Your task to perform on an android device: Clear all items from cart on target.com. Search for "logitech g pro" on target.com, select the first entry, add it to the cart, then select checkout. Image 0: 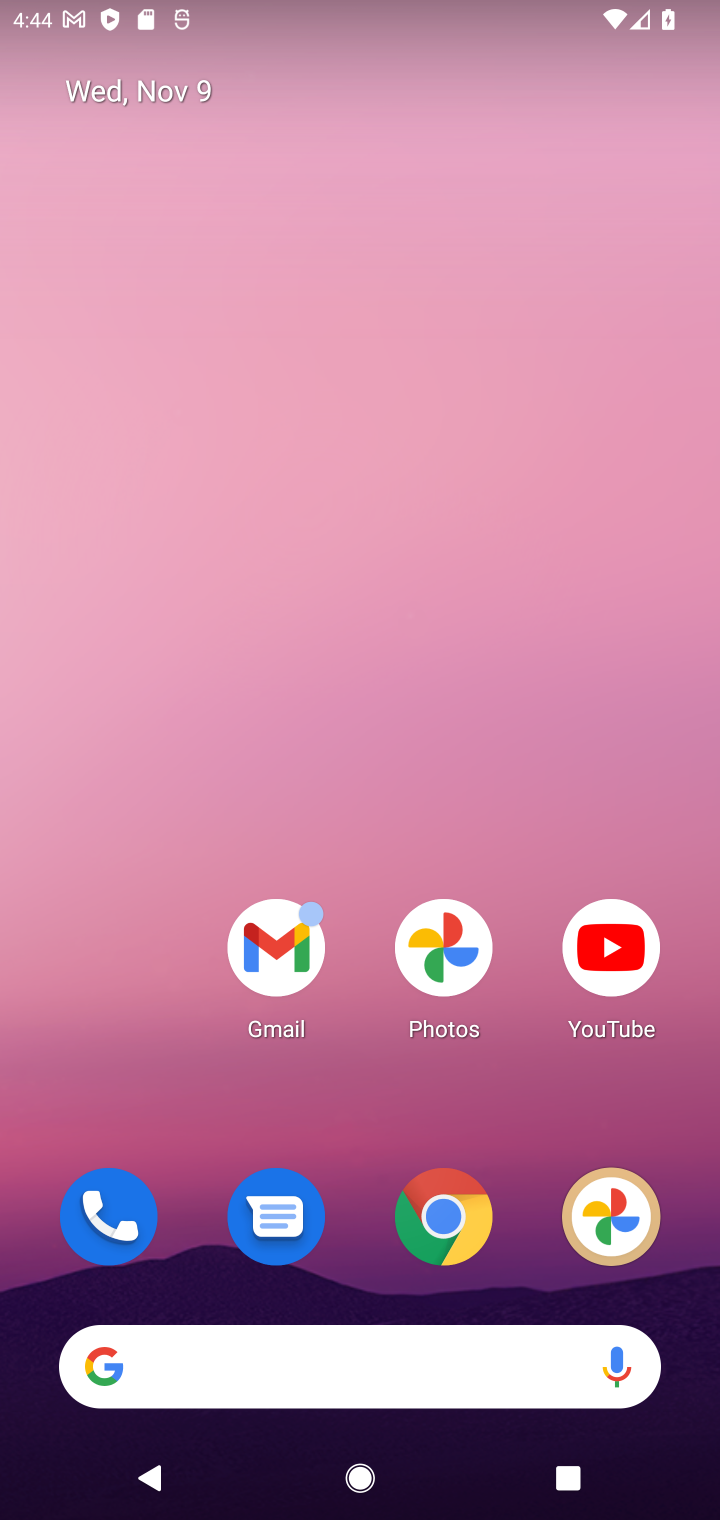
Step 0: drag from (351, 1273) to (426, 294)
Your task to perform on an android device: Clear all items from cart on target.com. Search for "logitech g pro" on target.com, select the first entry, add it to the cart, then select checkout. Image 1: 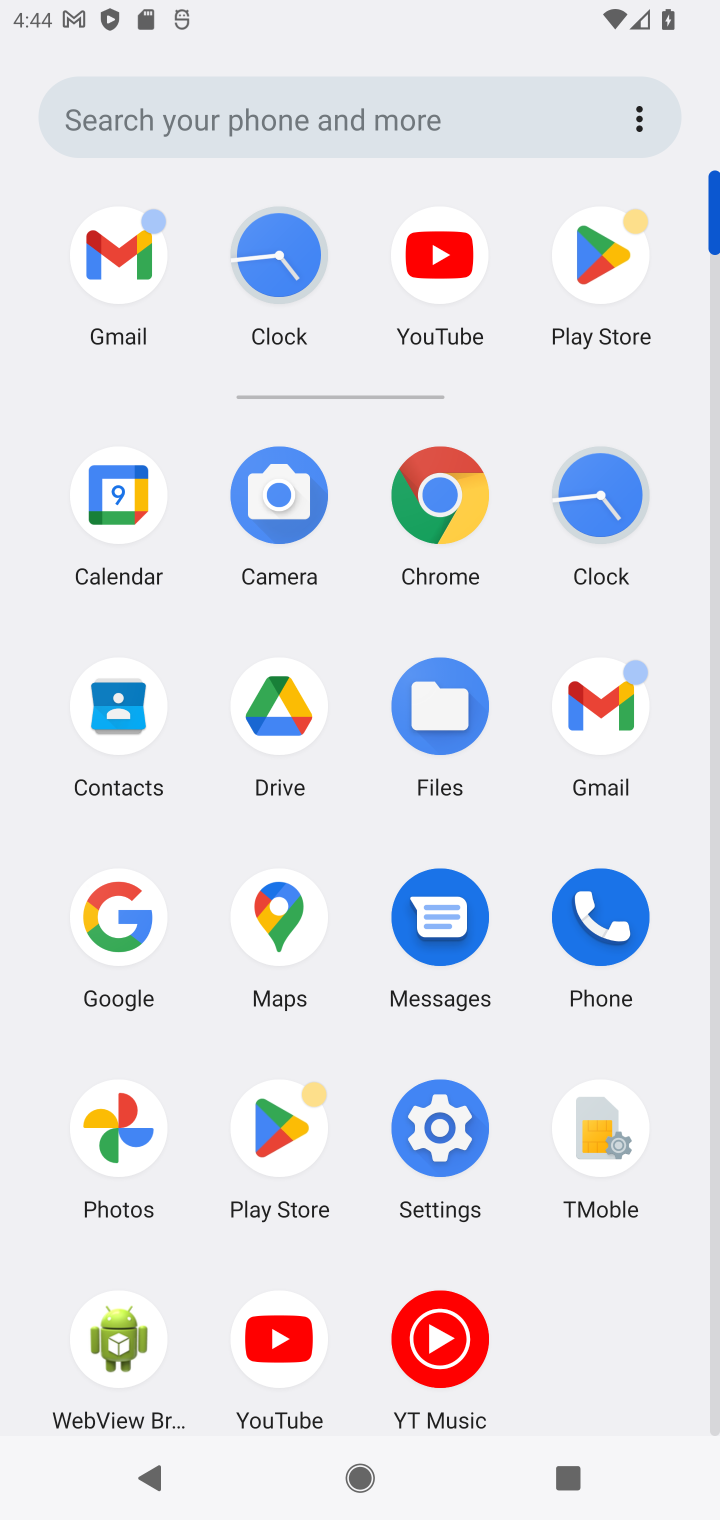
Step 1: click (450, 492)
Your task to perform on an android device: Clear all items from cart on target.com. Search for "logitech g pro" on target.com, select the first entry, add it to the cart, then select checkout. Image 2: 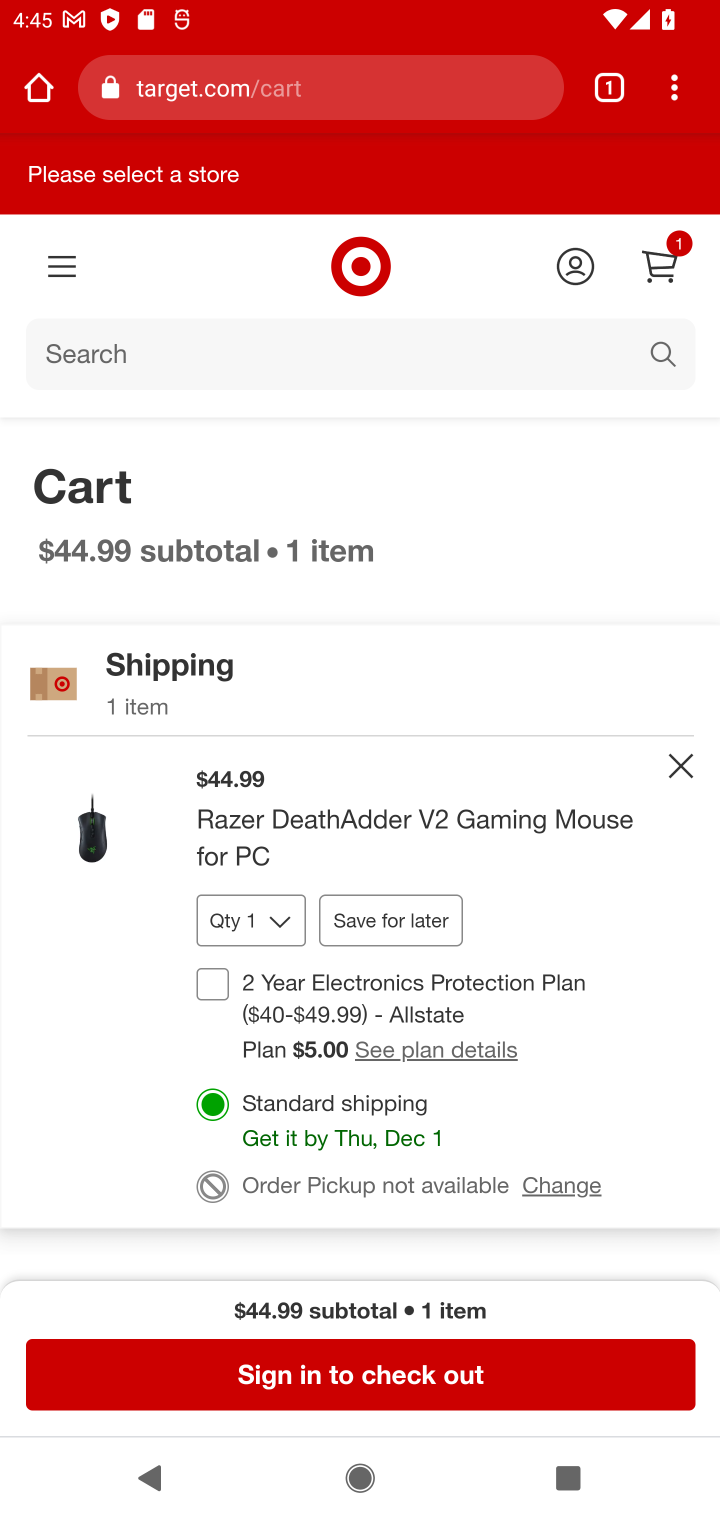
Step 2: click (668, 267)
Your task to perform on an android device: Clear all items from cart on target.com. Search for "logitech g pro" on target.com, select the first entry, add it to the cart, then select checkout. Image 3: 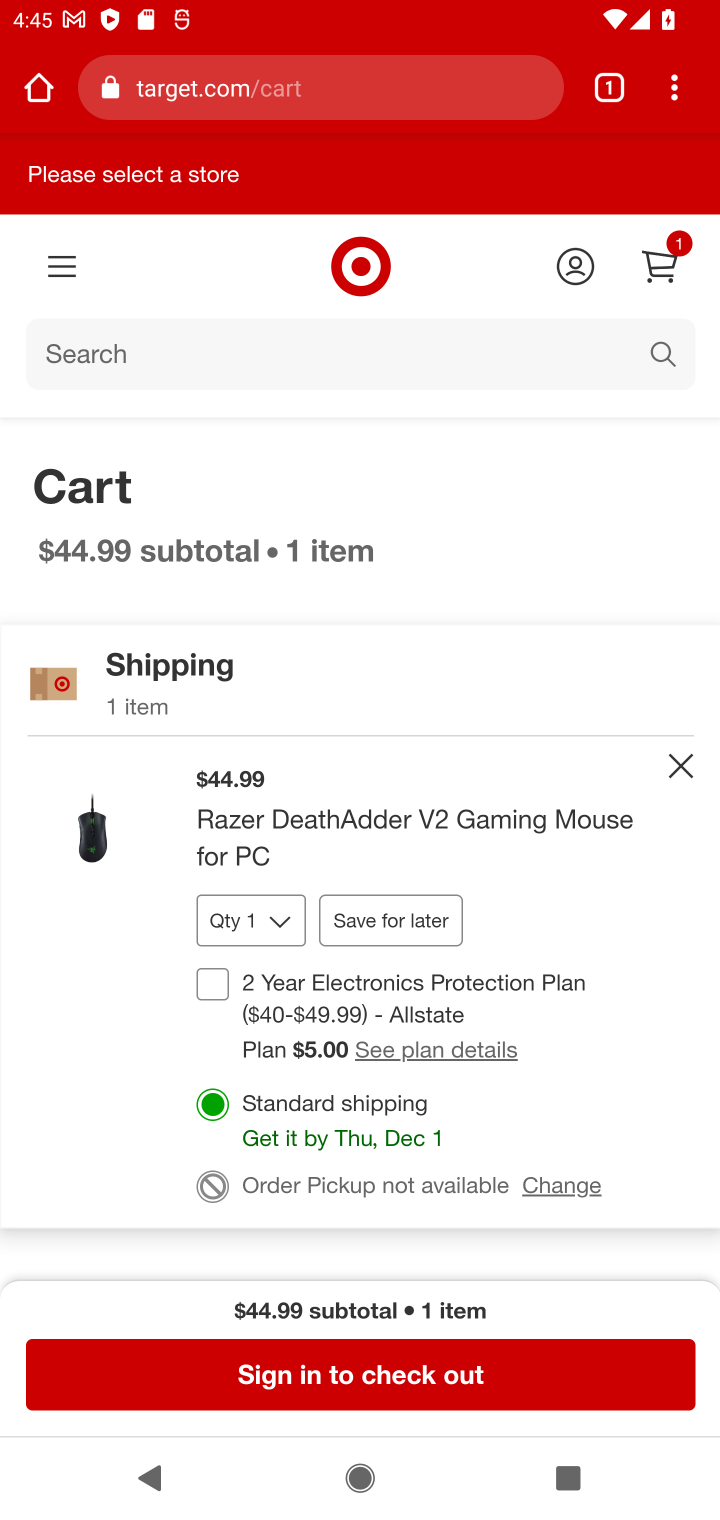
Step 3: click (685, 764)
Your task to perform on an android device: Clear all items from cart on target.com. Search for "logitech g pro" on target.com, select the first entry, add it to the cart, then select checkout. Image 4: 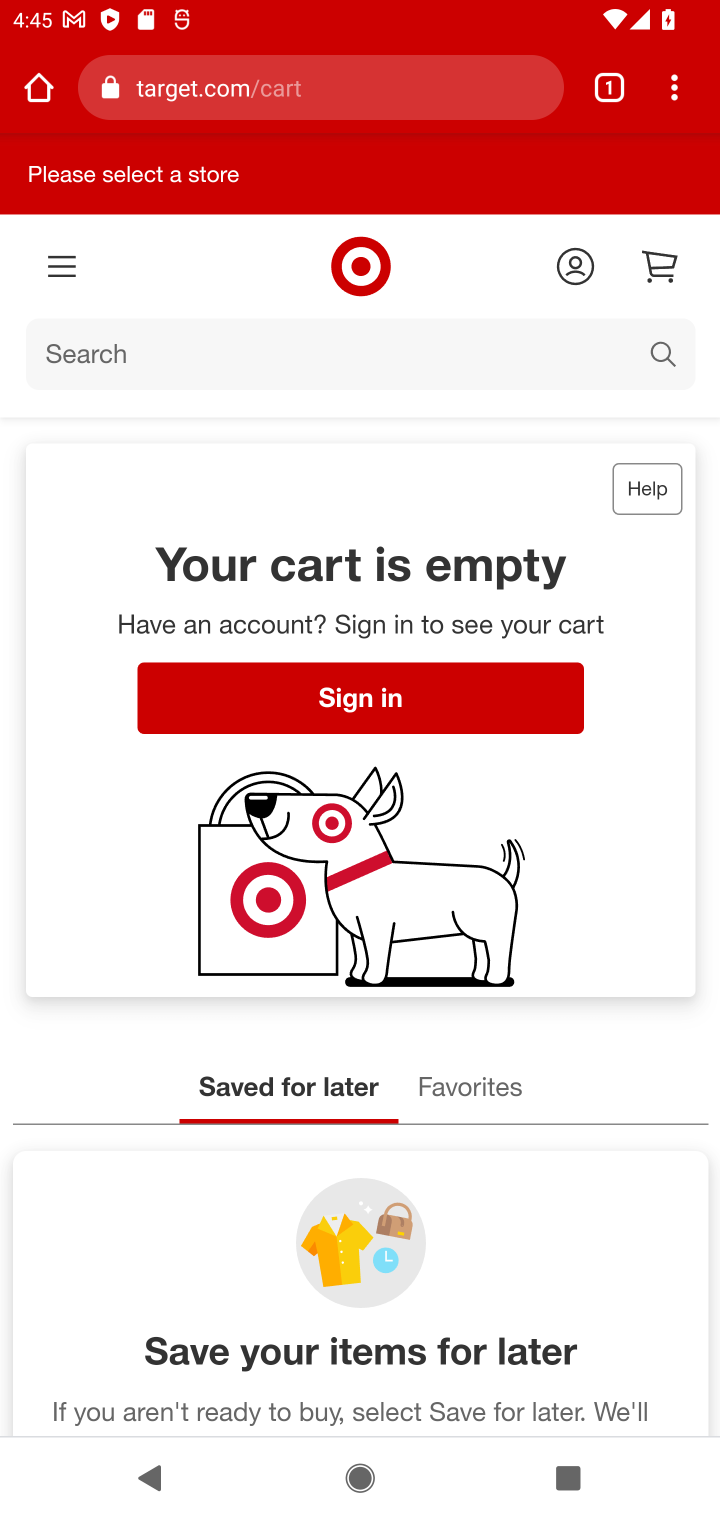
Step 4: click (370, 356)
Your task to perform on an android device: Clear all items from cart on target.com. Search for "logitech g pro" on target.com, select the first entry, add it to the cart, then select checkout. Image 5: 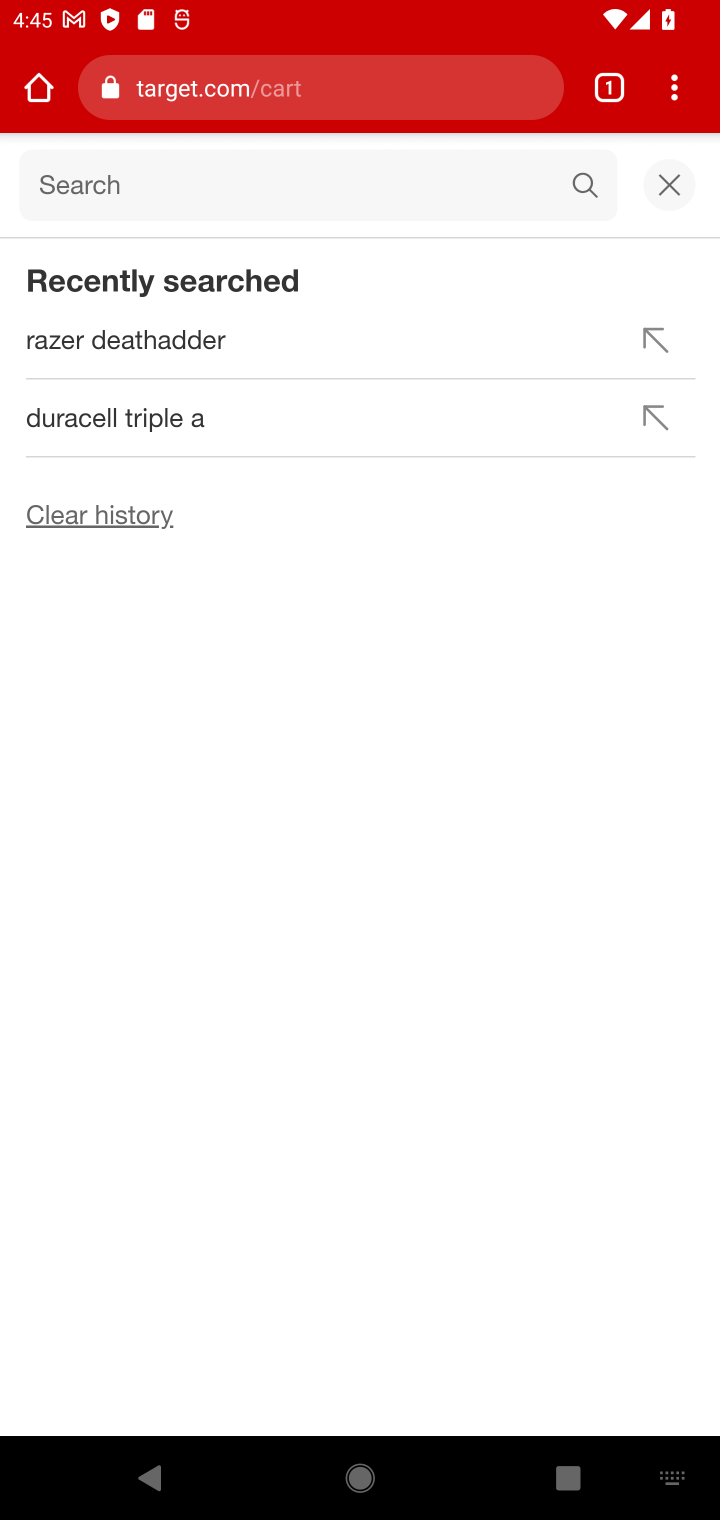
Step 5: type "logitech g pro"
Your task to perform on an android device: Clear all items from cart on target.com. Search for "logitech g pro" on target.com, select the first entry, add it to the cart, then select checkout. Image 6: 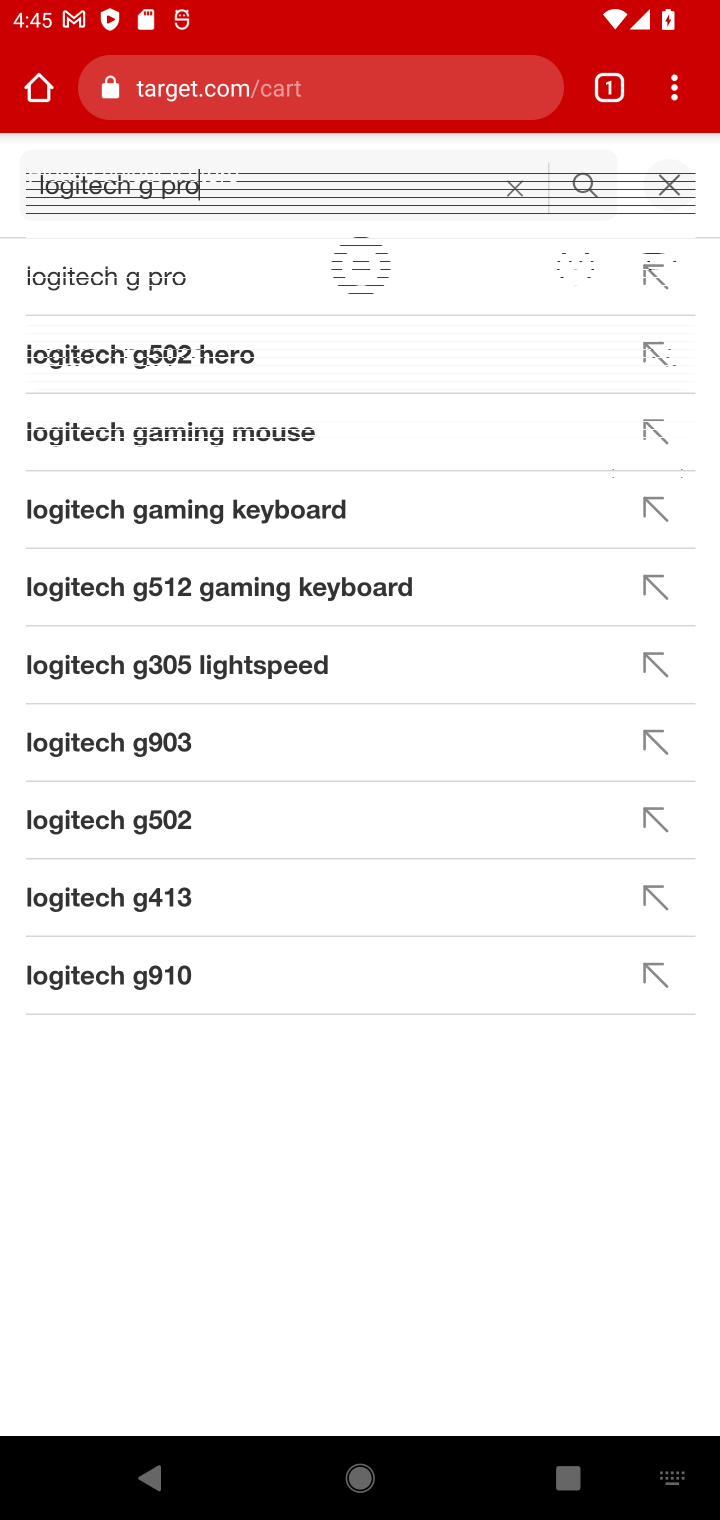
Step 6: press enter
Your task to perform on an android device: Clear all items from cart on target.com. Search for "logitech g pro" on target.com, select the first entry, add it to the cart, then select checkout. Image 7: 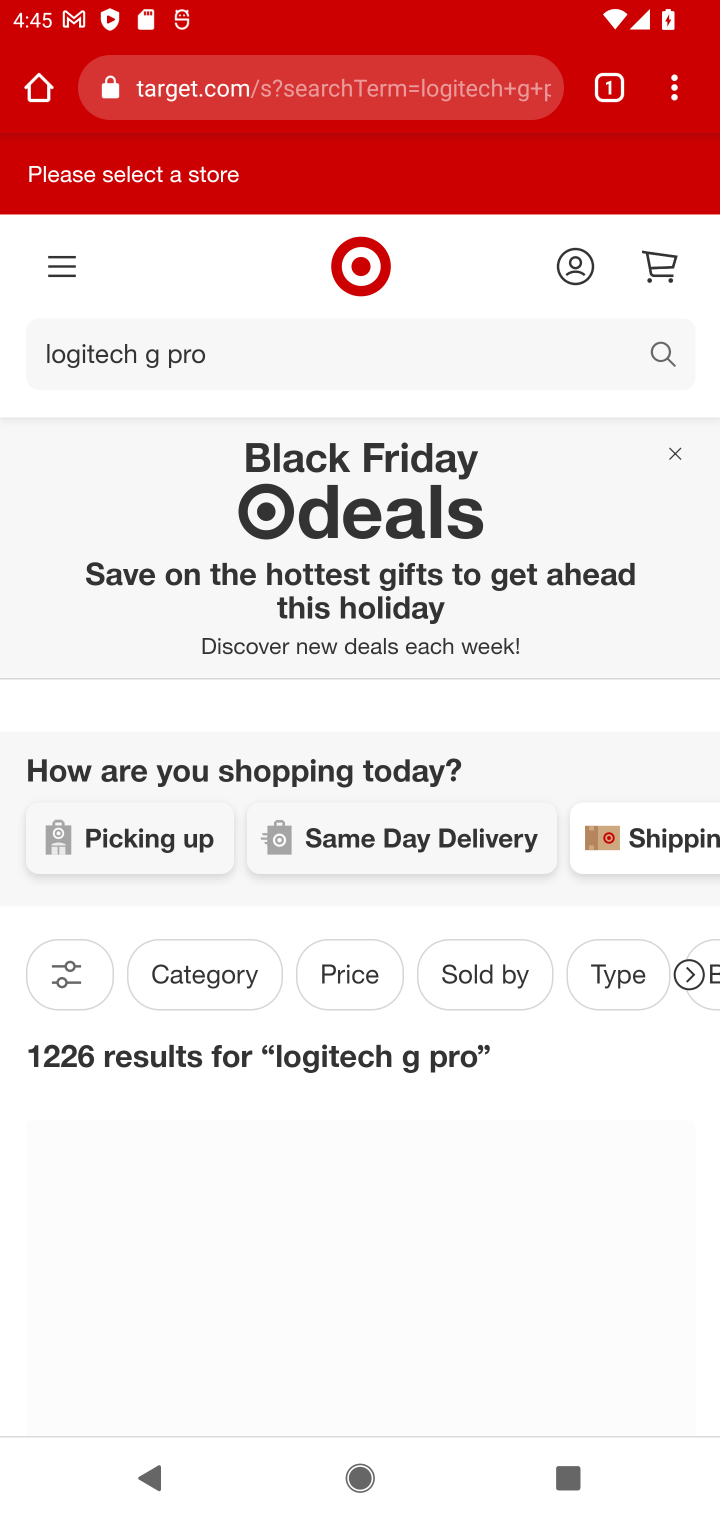
Step 7: task complete